Your task to perform on an android device: Play the last video I watched on Youtube Image 0: 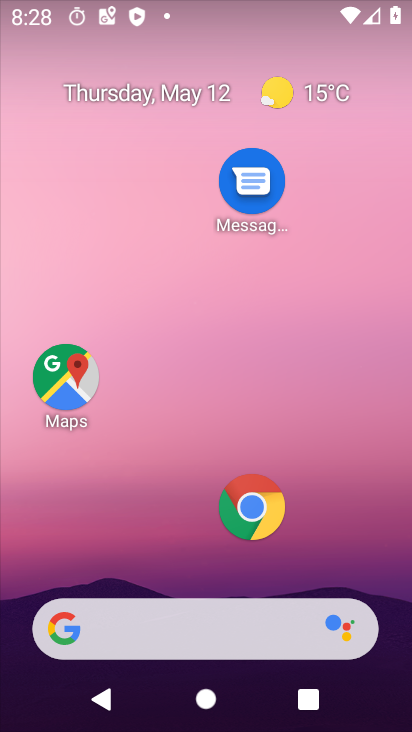
Step 0: drag from (130, 580) to (179, 122)
Your task to perform on an android device: Play the last video I watched on Youtube Image 1: 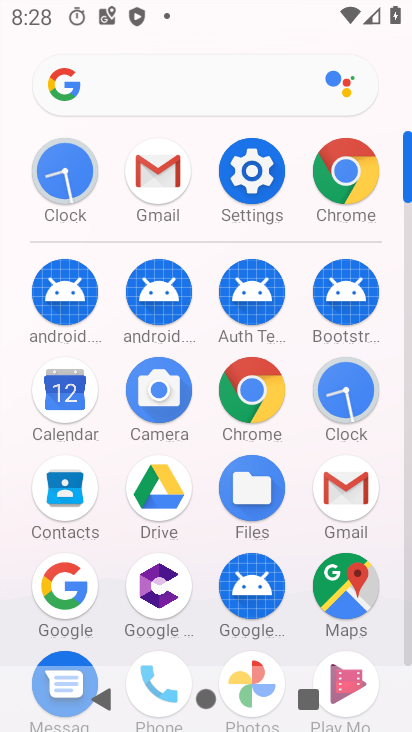
Step 1: drag from (196, 551) to (260, 193)
Your task to perform on an android device: Play the last video I watched on Youtube Image 2: 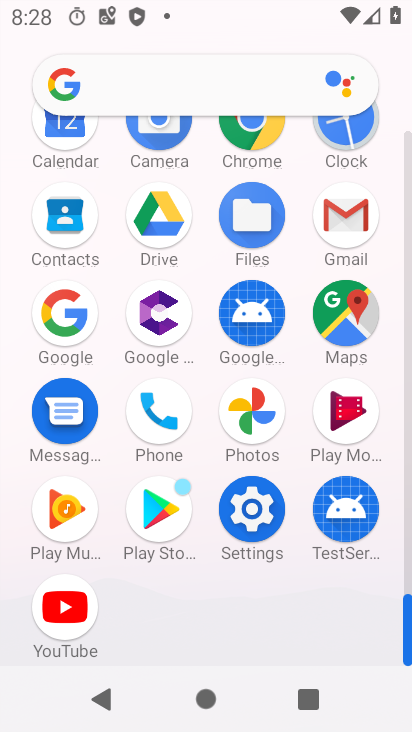
Step 2: click (54, 609)
Your task to perform on an android device: Play the last video I watched on Youtube Image 3: 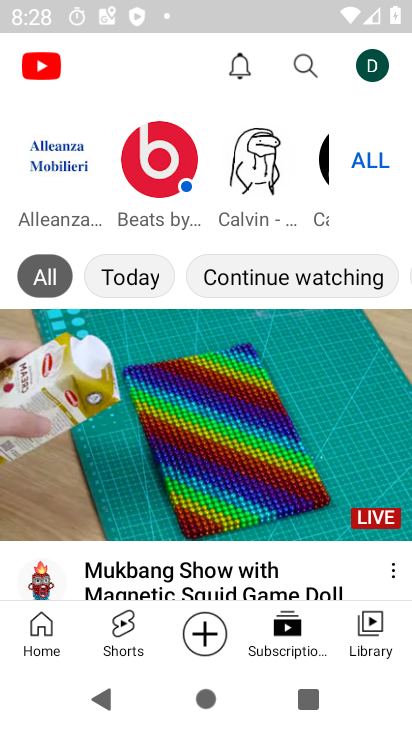
Step 3: click (378, 632)
Your task to perform on an android device: Play the last video I watched on Youtube Image 4: 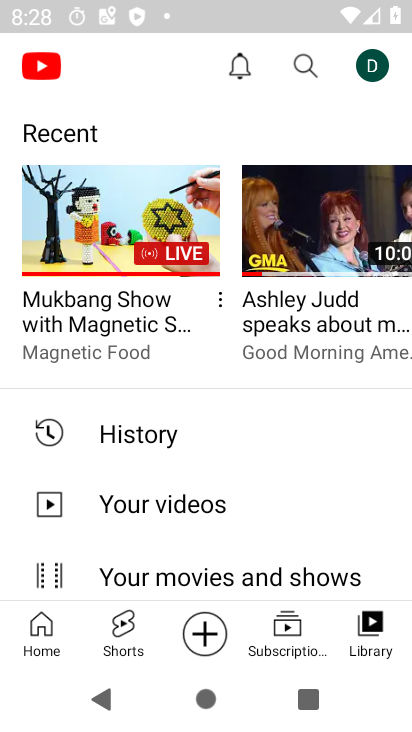
Step 4: click (132, 223)
Your task to perform on an android device: Play the last video I watched on Youtube Image 5: 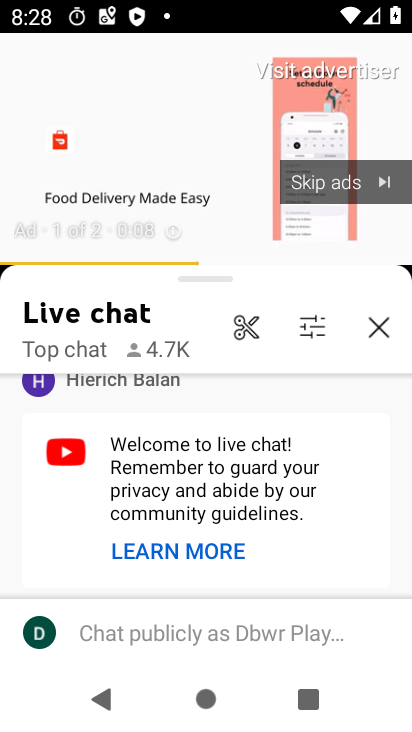
Step 5: task complete